Your task to perform on an android device: Open maps Image 0: 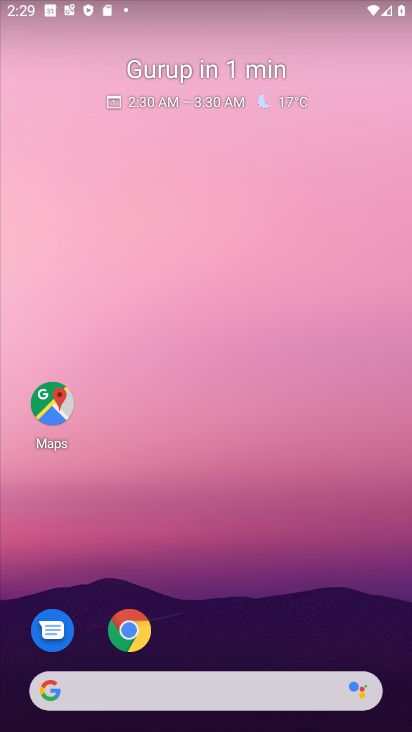
Step 0: click (61, 403)
Your task to perform on an android device: Open maps Image 1: 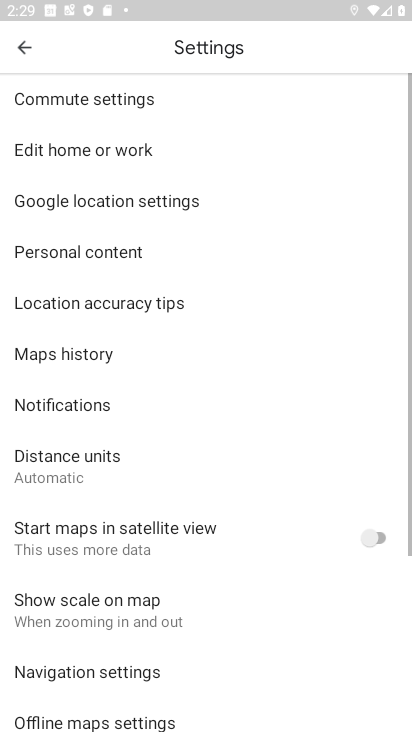
Step 1: click (24, 38)
Your task to perform on an android device: Open maps Image 2: 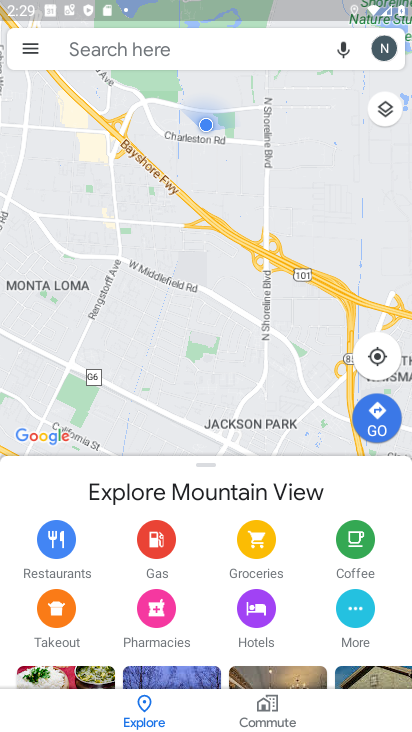
Step 2: task complete